Your task to perform on an android device: Go to Android settings Image 0: 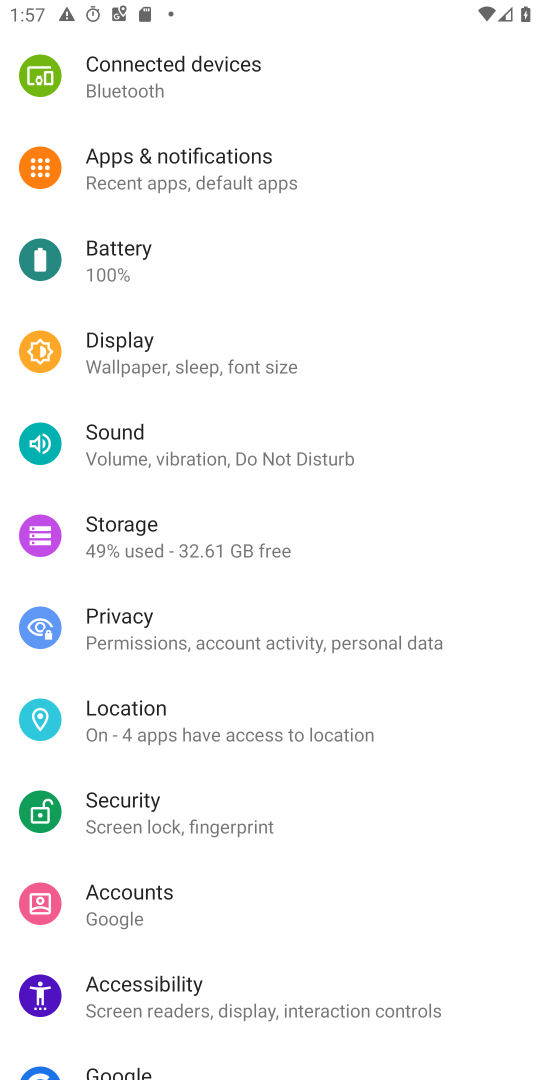
Step 0: drag from (142, 679) to (133, 78)
Your task to perform on an android device: Go to Android settings Image 1: 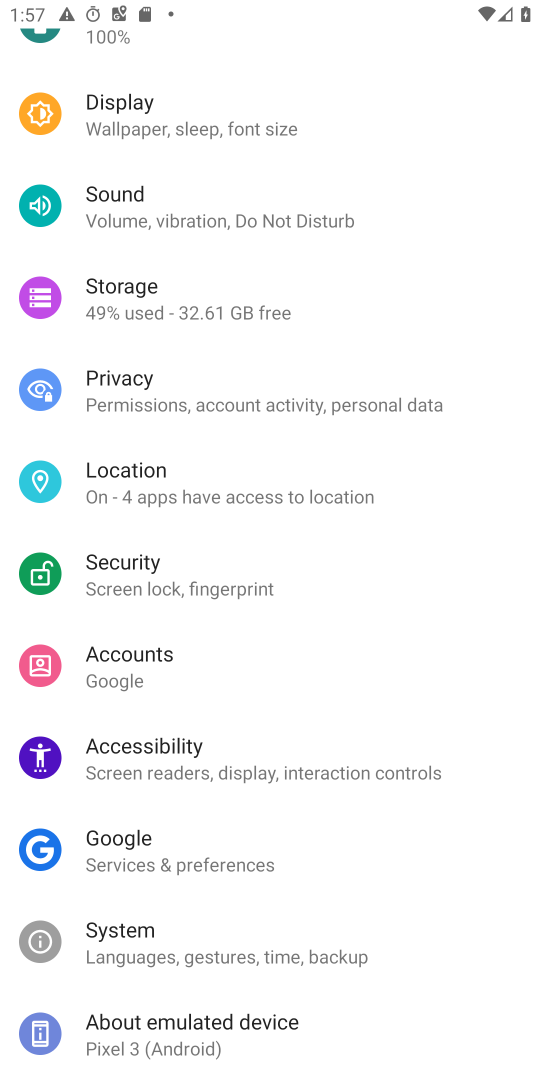
Step 1: click (180, 1026)
Your task to perform on an android device: Go to Android settings Image 2: 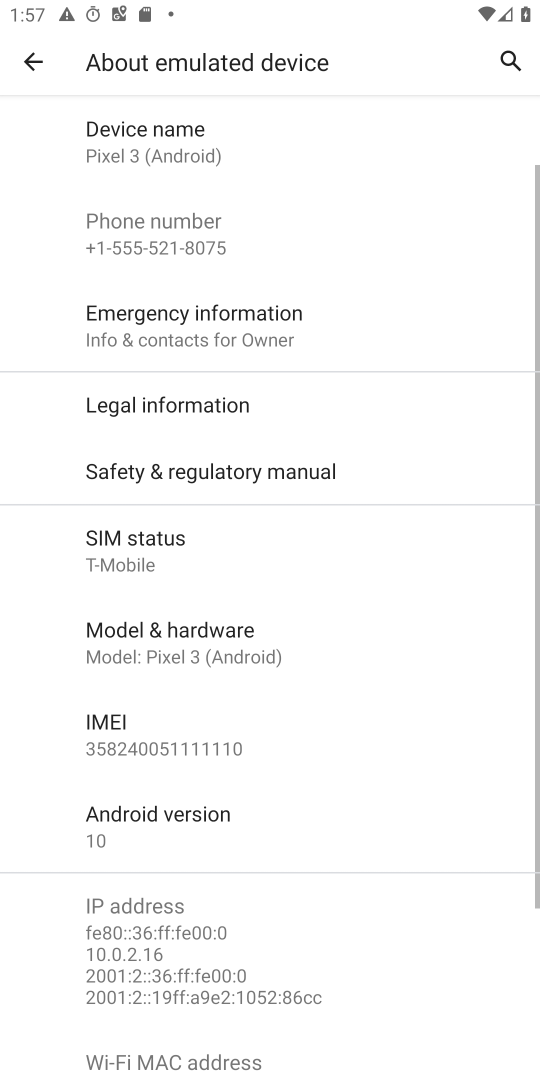
Step 2: click (210, 829)
Your task to perform on an android device: Go to Android settings Image 3: 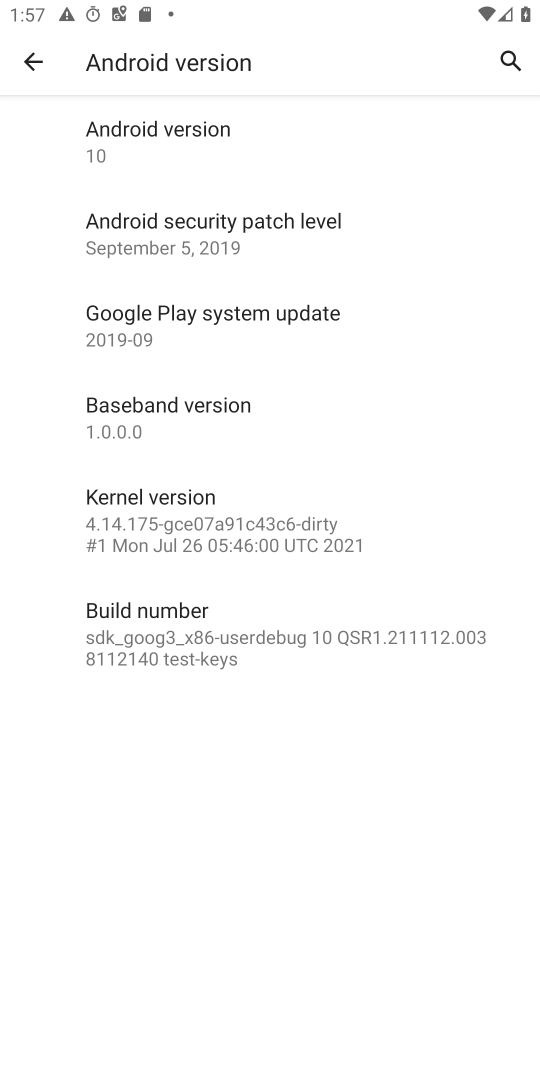
Step 3: task complete